Your task to perform on an android device: turn notification dots off Image 0: 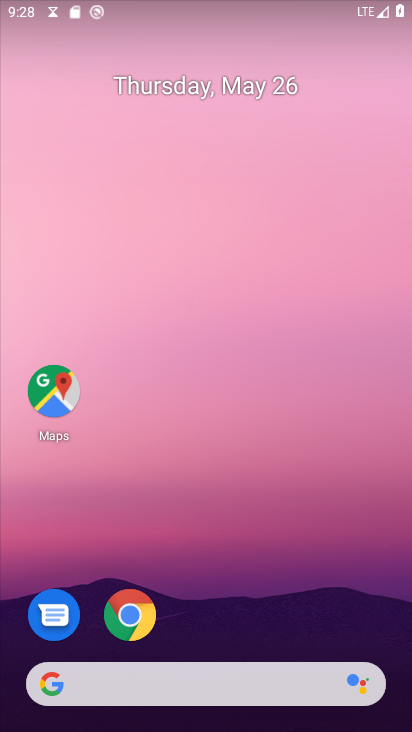
Step 0: drag from (292, 488) to (324, 211)
Your task to perform on an android device: turn notification dots off Image 1: 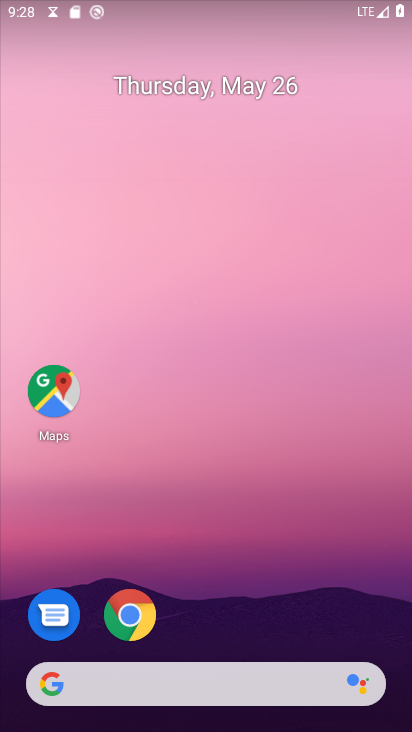
Step 1: drag from (236, 605) to (334, 46)
Your task to perform on an android device: turn notification dots off Image 2: 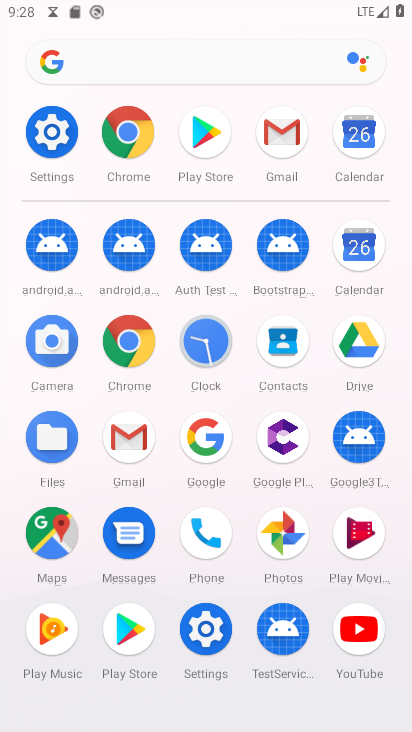
Step 2: click (45, 136)
Your task to perform on an android device: turn notification dots off Image 3: 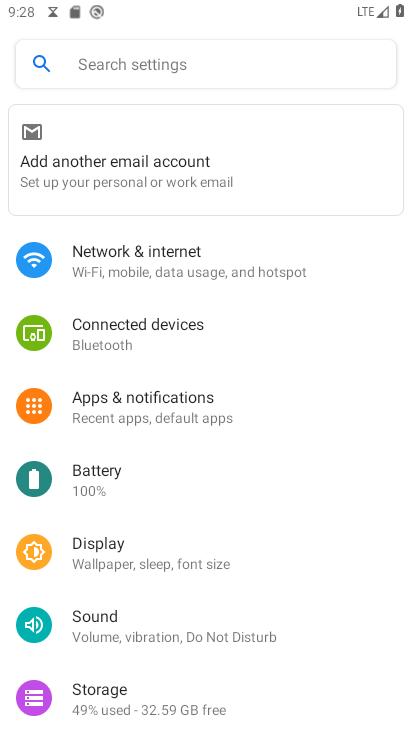
Step 3: click (155, 56)
Your task to perform on an android device: turn notification dots off Image 4: 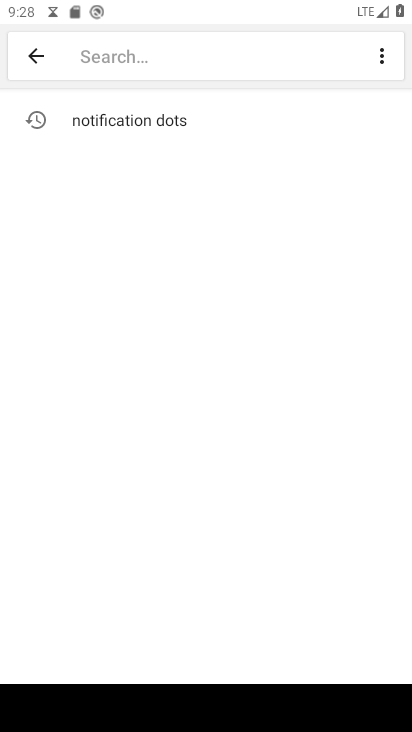
Step 4: click (193, 113)
Your task to perform on an android device: turn notification dots off Image 5: 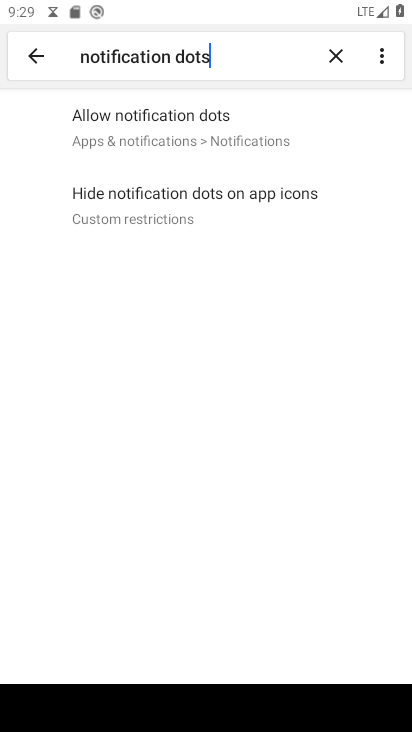
Step 5: click (202, 119)
Your task to perform on an android device: turn notification dots off Image 6: 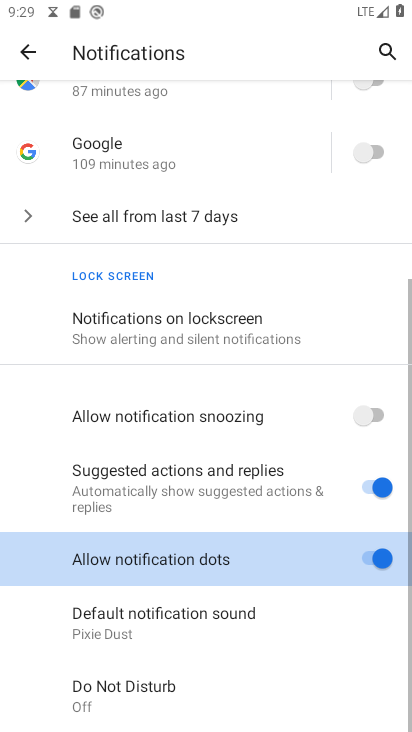
Step 6: click (370, 549)
Your task to perform on an android device: turn notification dots off Image 7: 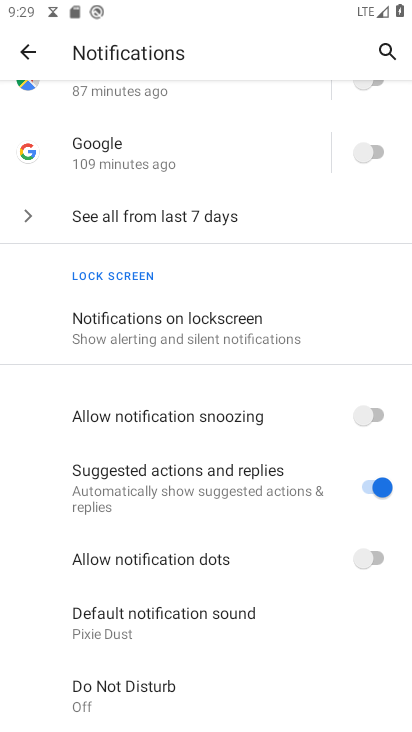
Step 7: task complete